Your task to perform on an android device: Open calendar and show me the fourth week of next month Image 0: 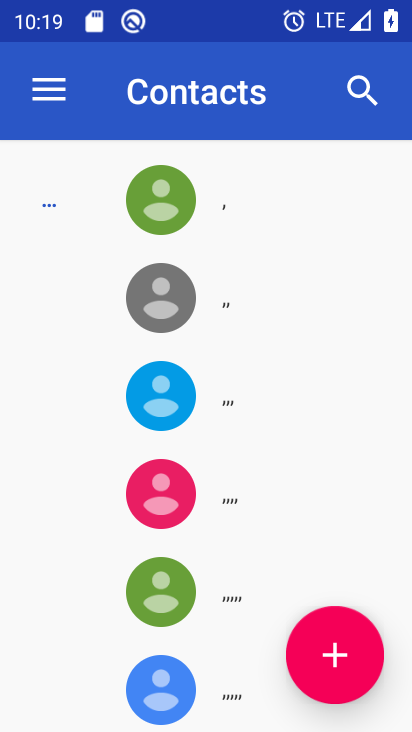
Step 0: press home button
Your task to perform on an android device: Open calendar and show me the fourth week of next month Image 1: 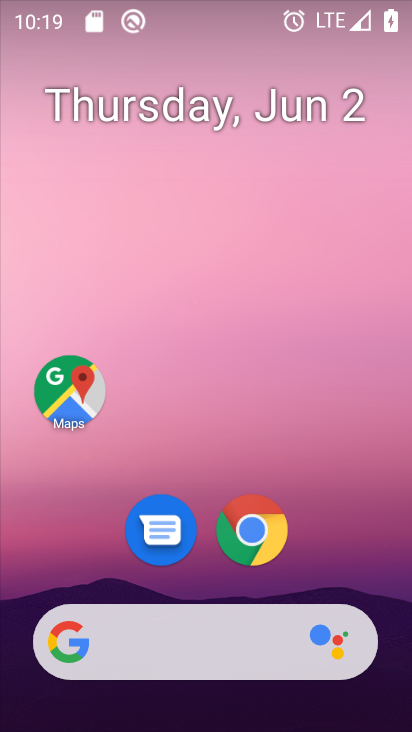
Step 1: drag from (199, 616) to (198, 347)
Your task to perform on an android device: Open calendar and show me the fourth week of next month Image 2: 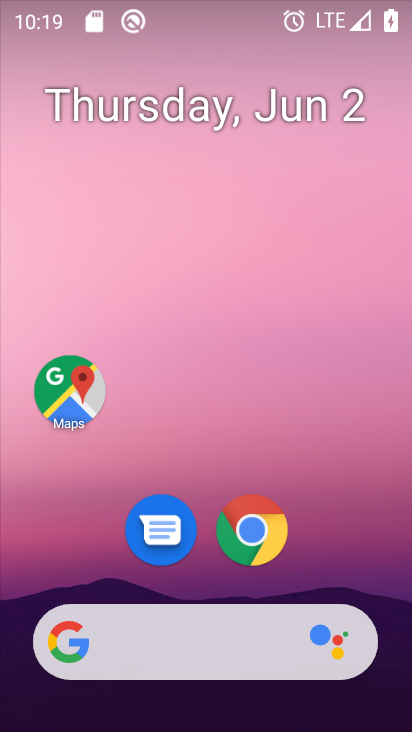
Step 2: drag from (219, 547) to (217, 140)
Your task to perform on an android device: Open calendar and show me the fourth week of next month Image 3: 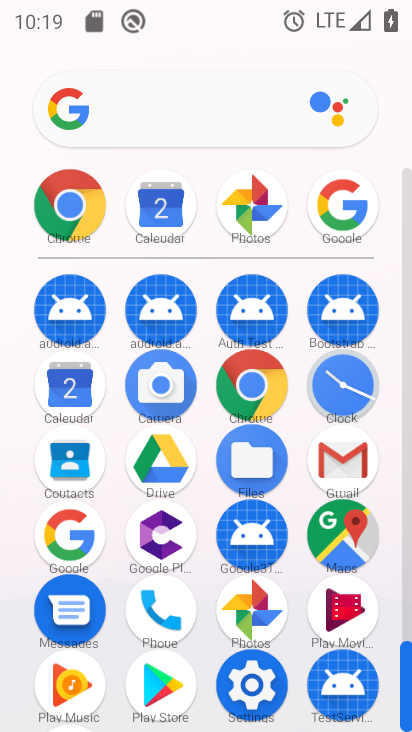
Step 3: click (80, 388)
Your task to perform on an android device: Open calendar and show me the fourth week of next month Image 4: 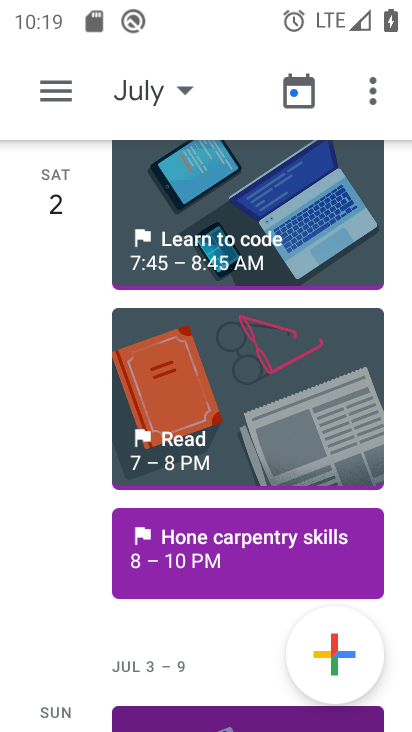
Step 4: click (130, 87)
Your task to perform on an android device: Open calendar and show me the fourth week of next month Image 5: 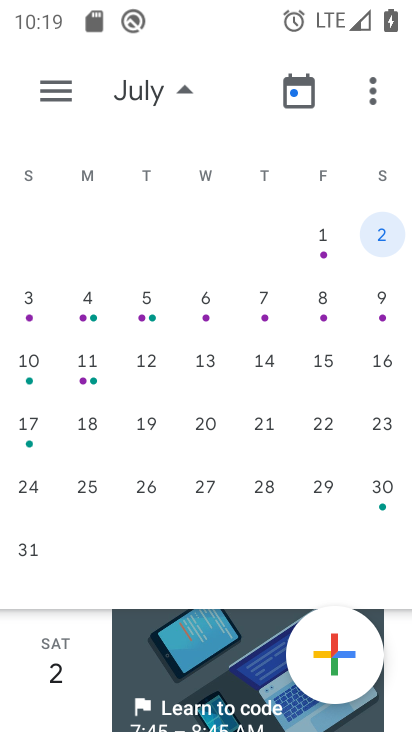
Step 5: click (24, 419)
Your task to perform on an android device: Open calendar and show me the fourth week of next month Image 6: 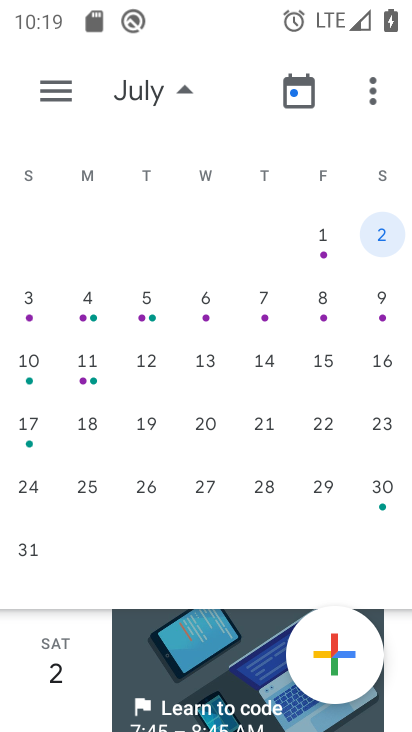
Step 6: click (26, 422)
Your task to perform on an android device: Open calendar and show me the fourth week of next month Image 7: 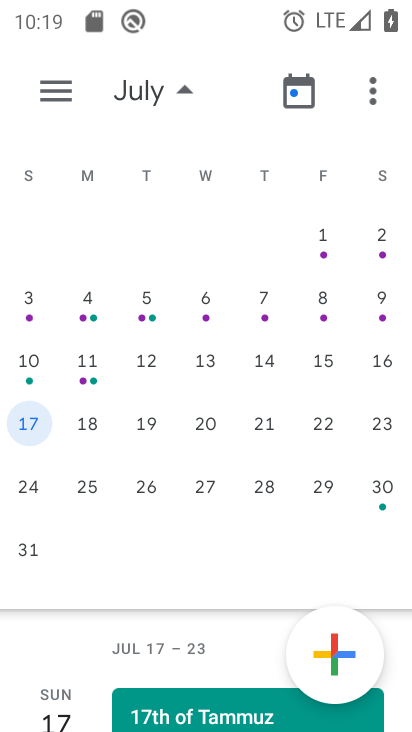
Step 7: task complete